Your task to perform on an android device: Open sound settings Image 0: 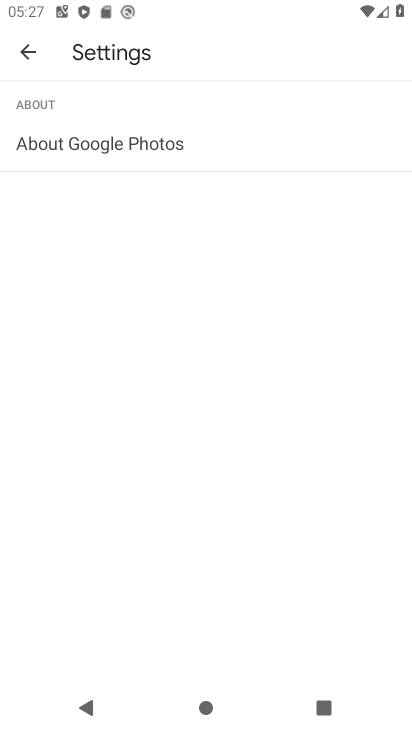
Step 0: press back button
Your task to perform on an android device: Open sound settings Image 1: 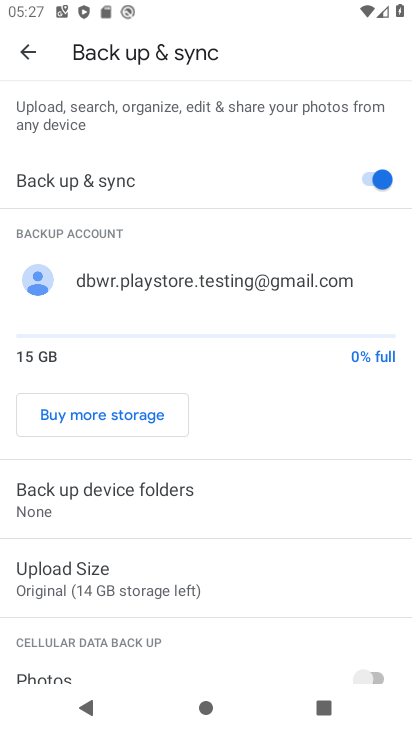
Step 1: press home button
Your task to perform on an android device: Open sound settings Image 2: 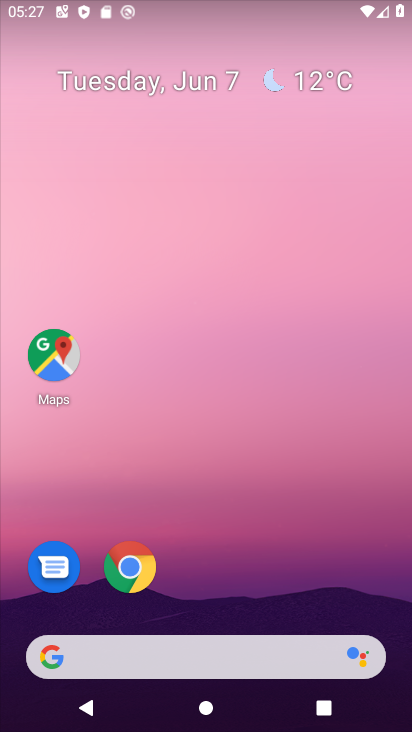
Step 2: drag from (294, 560) to (223, 11)
Your task to perform on an android device: Open sound settings Image 3: 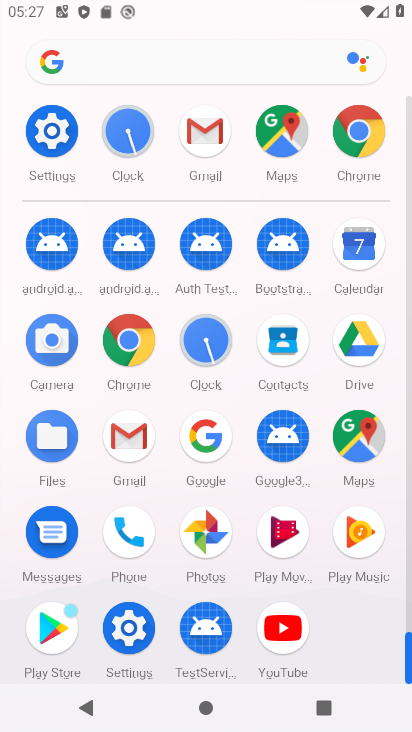
Step 3: click (131, 626)
Your task to perform on an android device: Open sound settings Image 4: 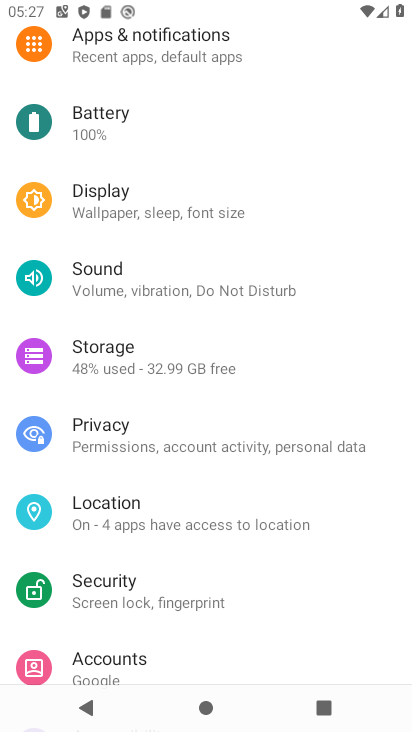
Step 4: click (149, 277)
Your task to perform on an android device: Open sound settings Image 5: 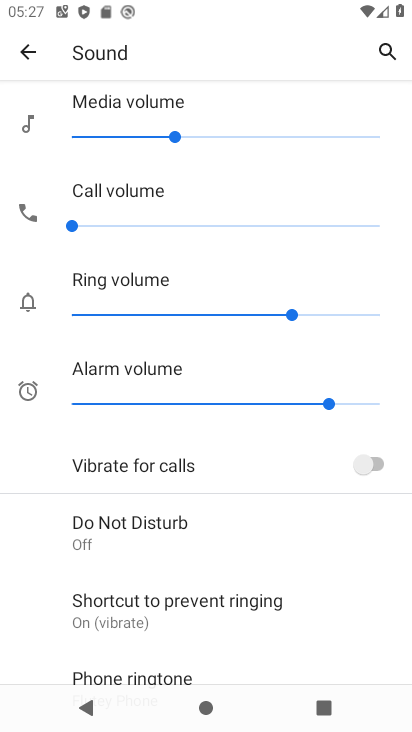
Step 5: drag from (208, 407) to (223, 215)
Your task to perform on an android device: Open sound settings Image 6: 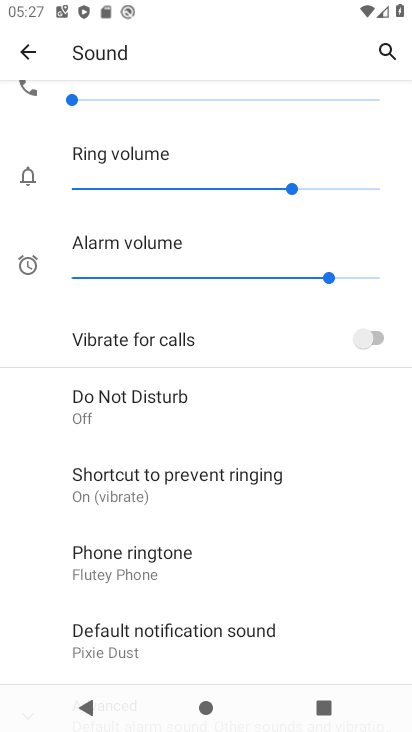
Step 6: drag from (256, 517) to (283, 138)
Your task to perform on an android device: Open sound settings Image 7: 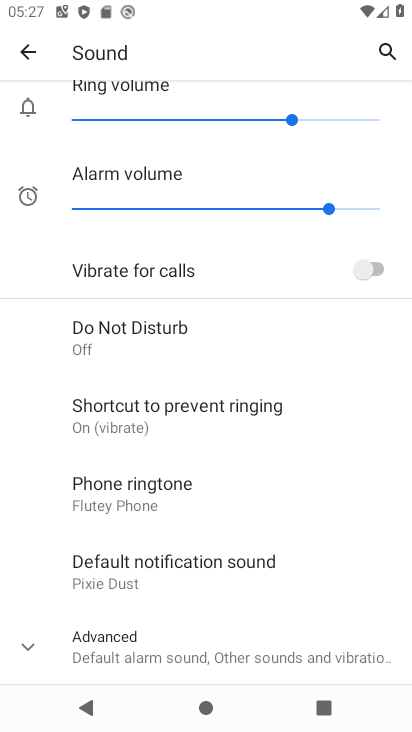
Step 7: drag from (283, 143) to (283, 605)
Your task to perform on an android device: Open sound settings Image 8: 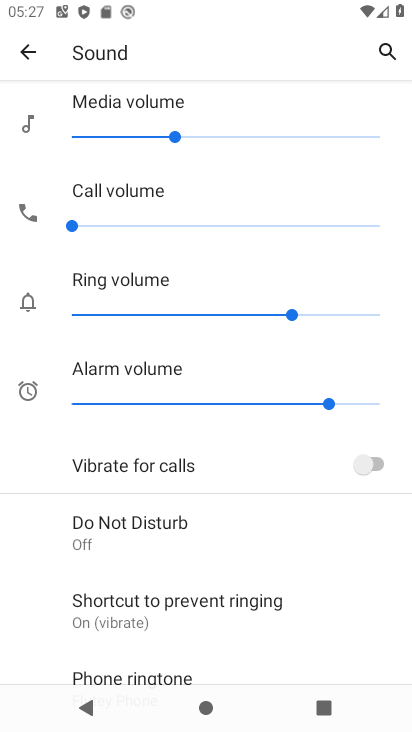
Step 8: drag from (158, 548) to (222, 179)
Your task to perform on an android device: Open sound settings Image 9: 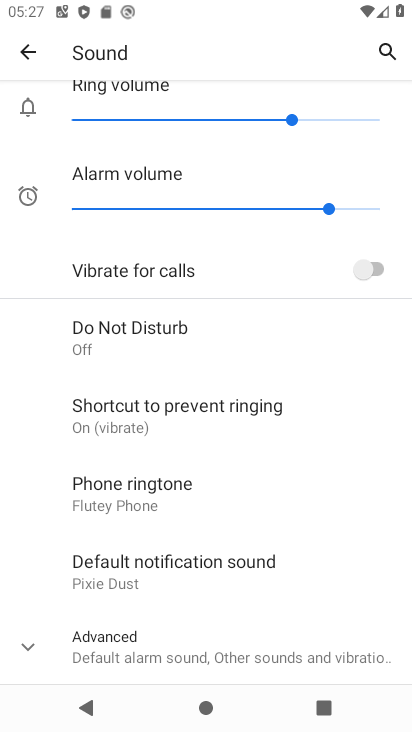
Step 9: click (39, 645)
Your task to perform on an android device: Open sound settings Image 10: 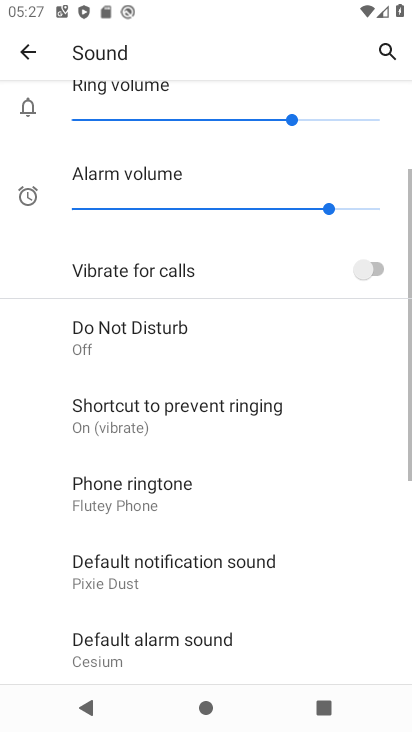
Step 10: task complete